Your task to perform on an android device: Go to battery settings Image 0: 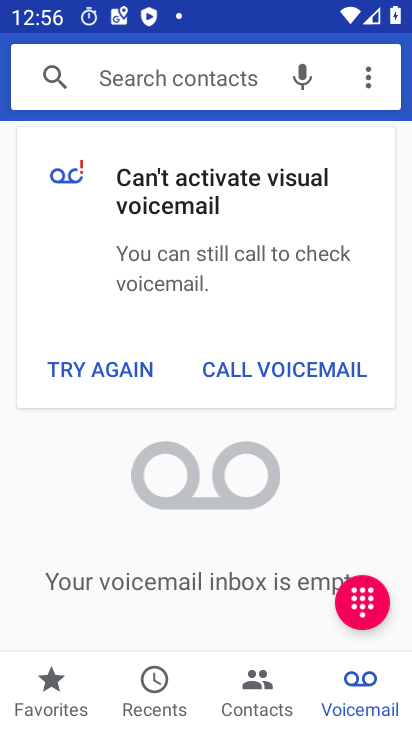
Step 0: press home button
Your task to perform on an android device: Go to battery settings Image 1: 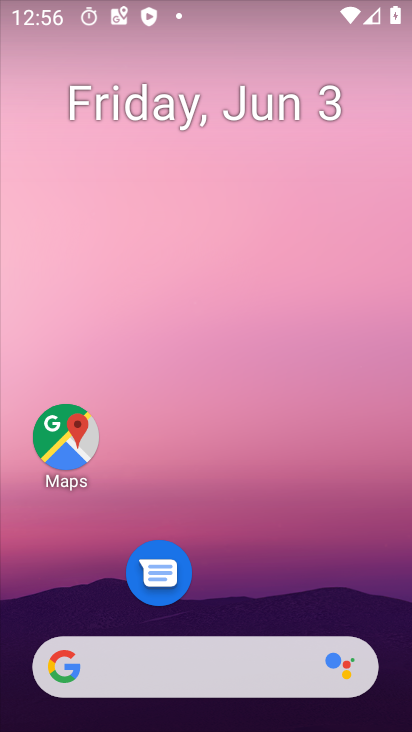
Step 1: drag from (264, 711) to (235, 269)
Your task to perform on an android device: Go to battery settings Image 2: 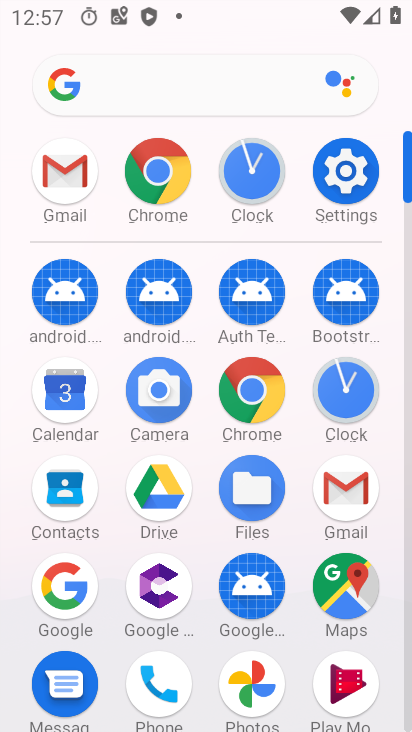
Step 2: drag from (353, 1) to (301, 511)
Your task to perform on an android device: Go to battery settings Image 3: 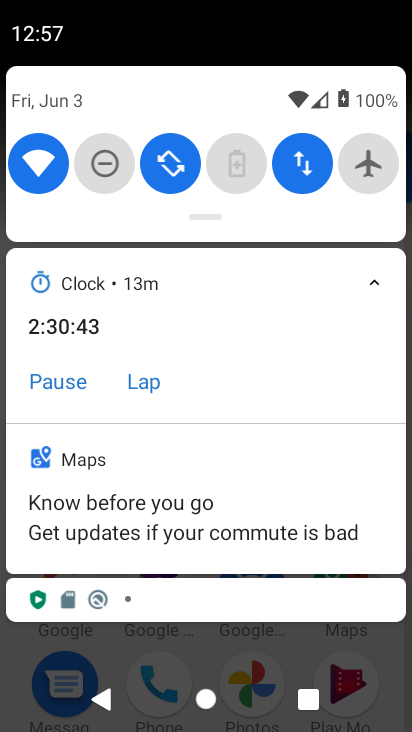
Step 3: click (345, 96)
Your task to perform on an android device: Go to battery settings Image 4: 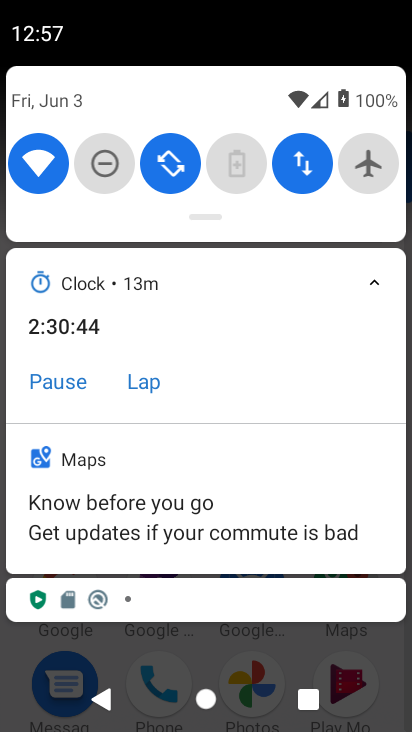
Step 4: click (349, 98)
Your task to perform on an android device: Go to battery settings Image 5: 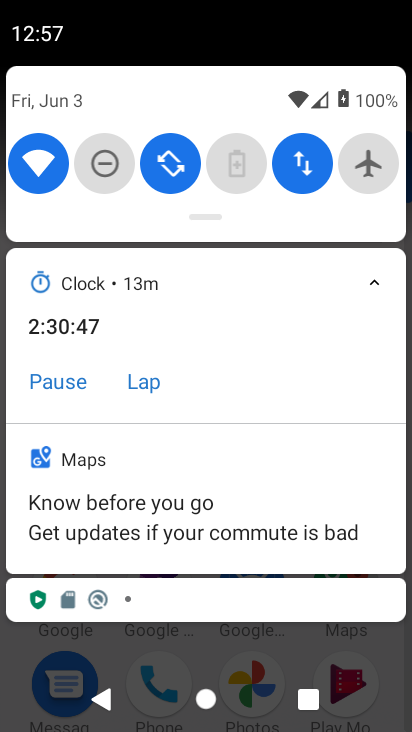
Step 5: click (219, 698)
Your task to perform on an android device: Go to battery settings Image 6: 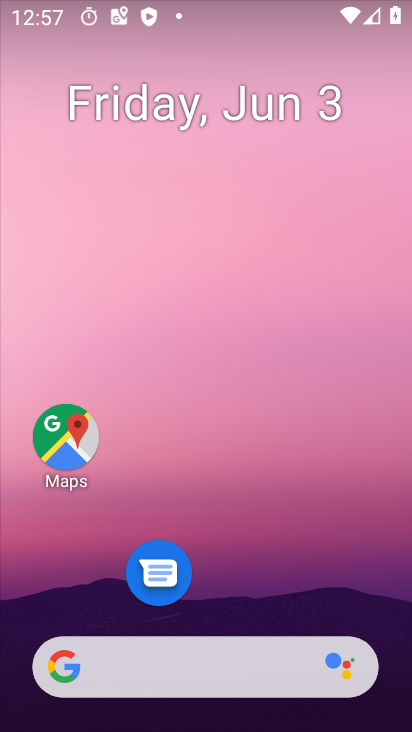
Step 6: drag from (286, 573) to (257, 221)
Your task to perform on an android device: Go to battery settings Image 7: 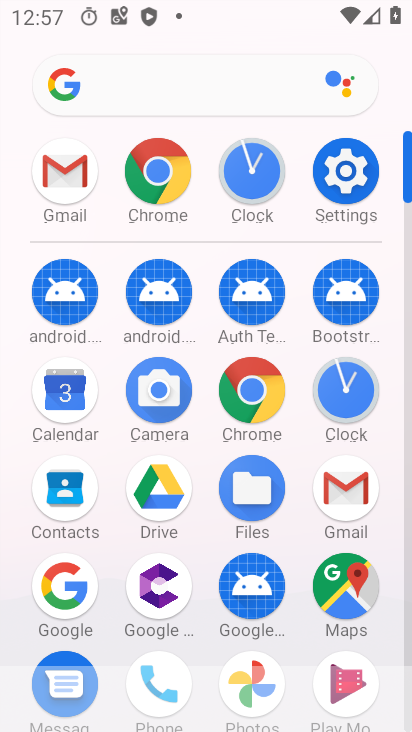
Step 7: click (360, 172)
Your task to perform on an android device: Go to battery settings Image 8: 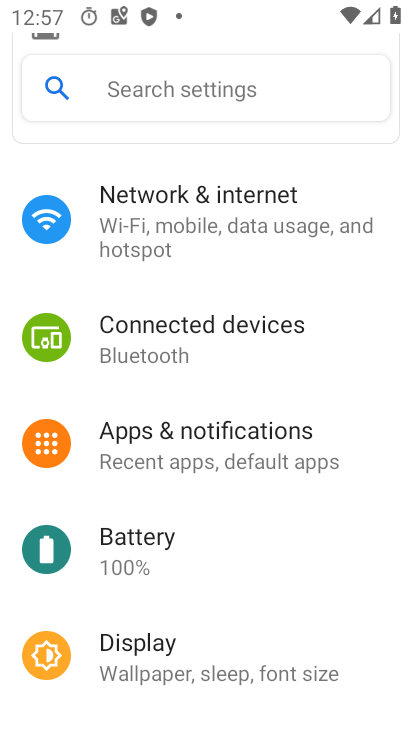
Step 8: click (169, 550)
Your task to perform on an android device: Go to battery settings Image 9: 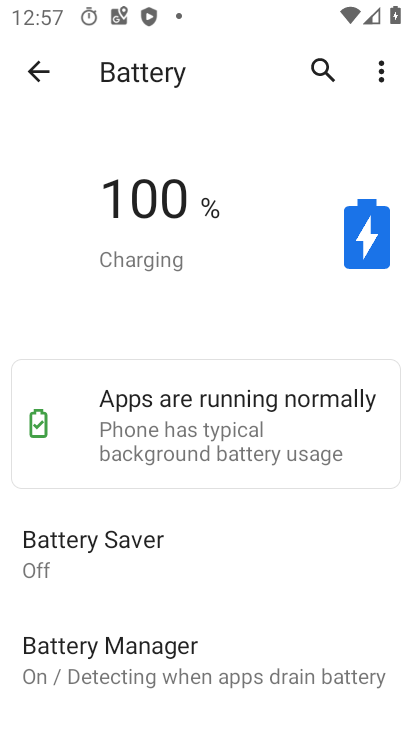
Step 9: task complete